Your task to perform on an android device: open device folders in google photos Image 0: 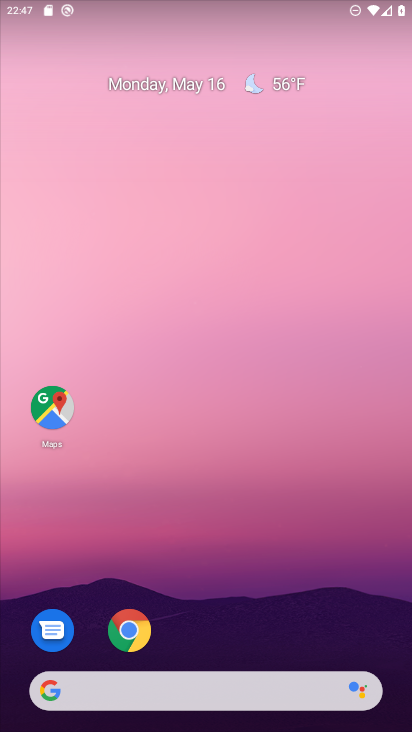
Step 0: drag from (217, 637) to (290, 122)
Your task to perform on an android device: open device folders in google photos Image 1: 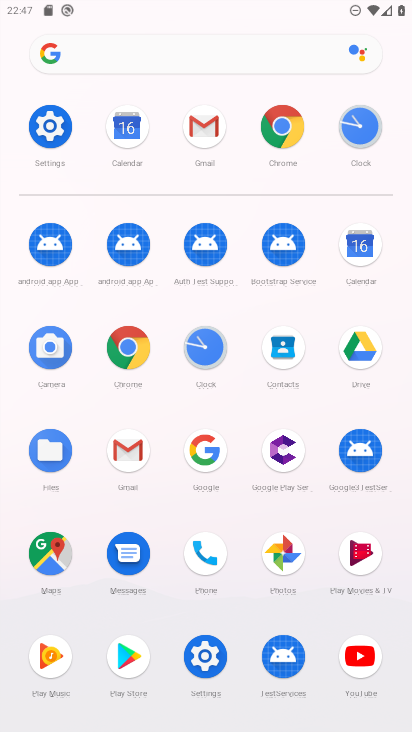
Step 1: click (269, 565)
Your task to perform on an android device: open device folders in google photos Image 2: 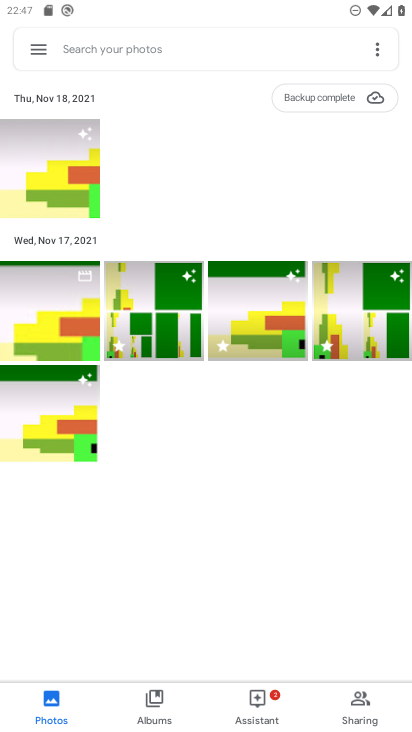
Step 2: click (31, 46)
Your task to perform on an android device: open device folders in google photos Image 3: 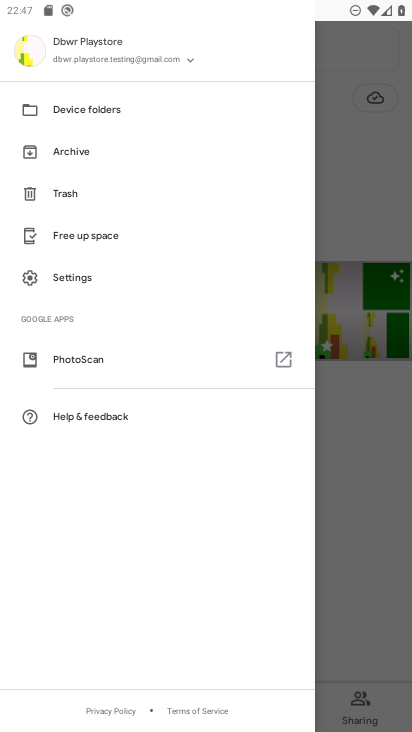
Step 3: click (62, 102)
Your task to perform on an android device: open device folders in google photos Image 4: 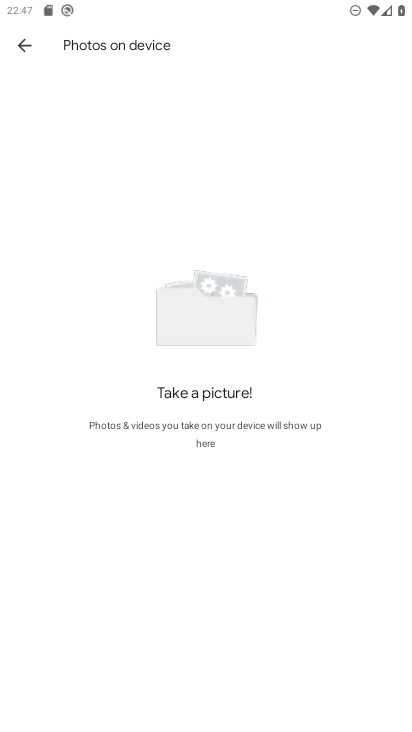
Step 4: task complete